Your task to perform on an android device: Go to eBay Image 0: 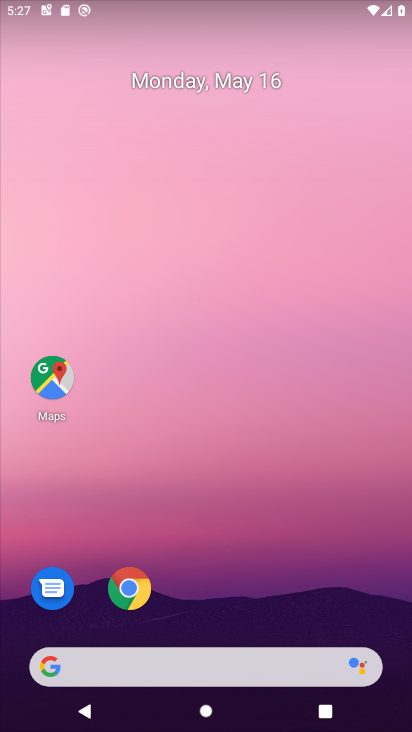
Step 0: click (150, 582)
Your task to perform on an android device: Go to eBay Image 1: 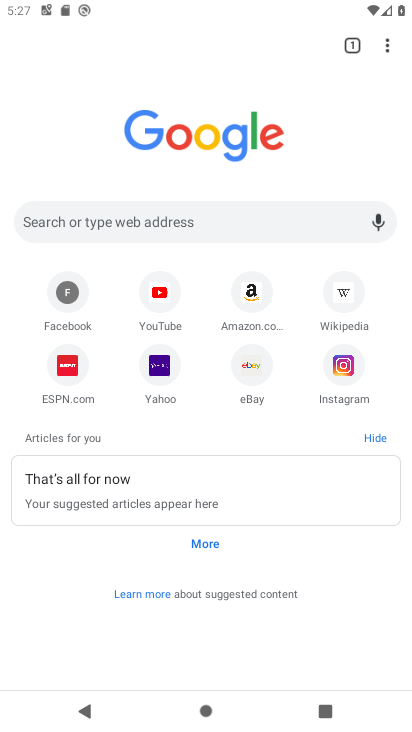
Step 1: click (244, 365)
Your task to perform on an android device: Go to eBay Image 2: 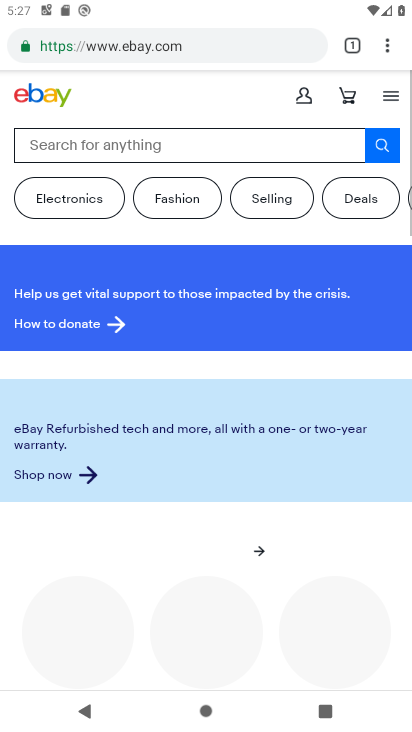
Step 2: task complete